Your task to perform on an android device: Open settings Image 0: 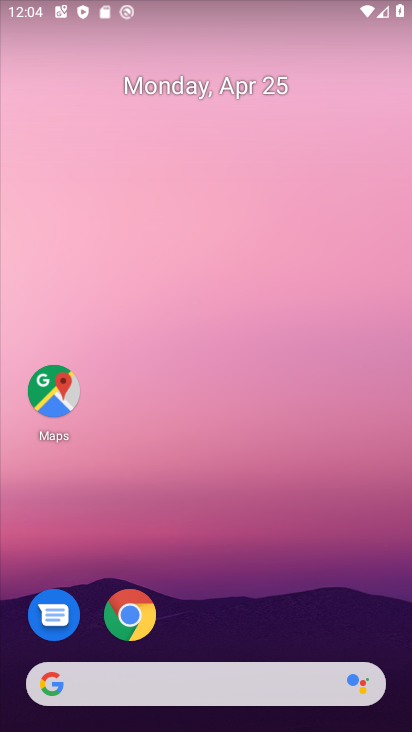
Step 0: drag from (354, 602) to (369, 120)
Your task to perform on an android device: Open settings Image 1: 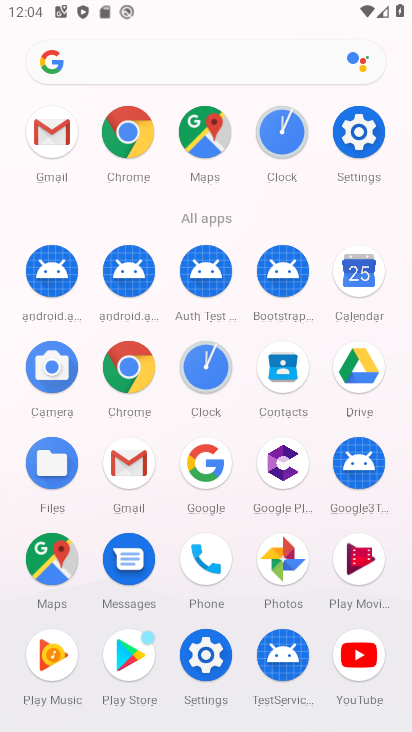
Step 1: click (365, 134)
Your task to perform on an android device: Open settings Image 2: 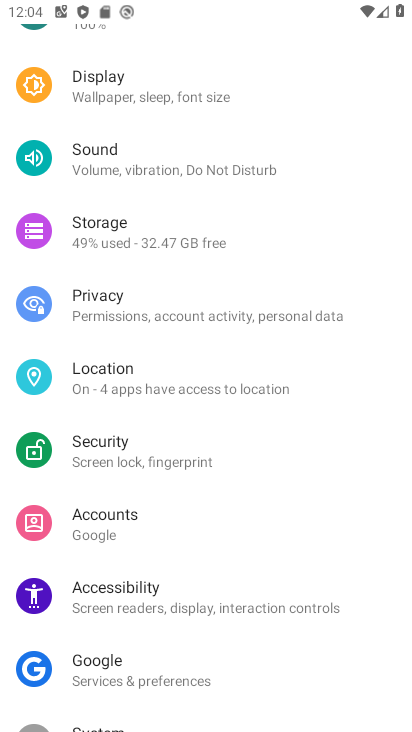
Step 2: task complete